Your task to perform on an android device: turn off picture-in-picture Image 0: 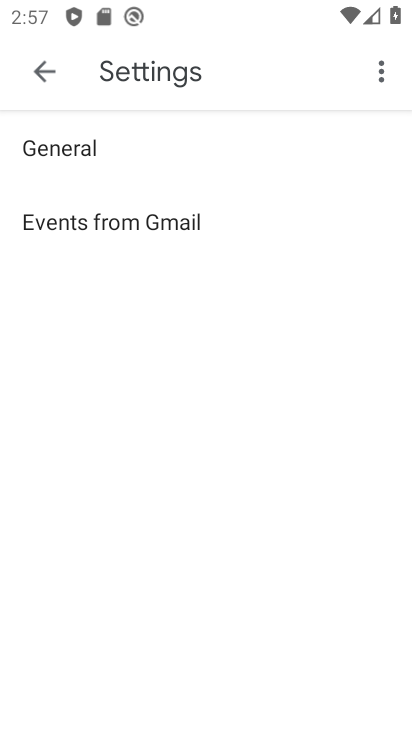
Step 0: press home button
Your task to perform on an android device: turn off picture-in-picture Image 1: 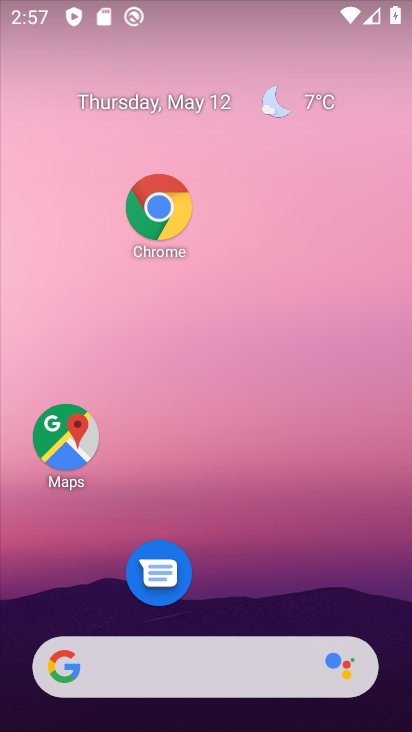
Step 1: drag from (252, 611) to (243, 567)
Your task to perform on an android device: turn off picture-in-picture Image 2: 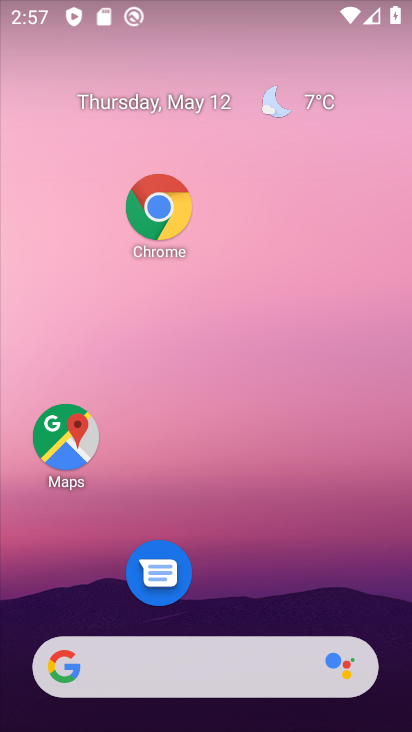
Step 2: click (169, 225)
Your task to perform on an android device: turn off picture-in-picture Image 3: 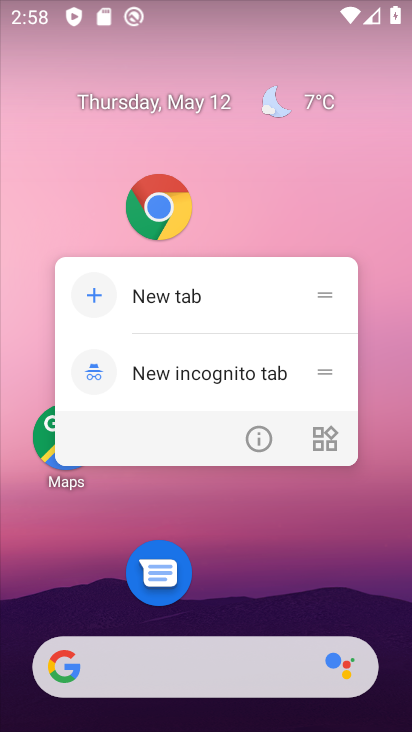
Step 3: click (254, 445)
Your task to perform on an android device: turn off picture-in-picture Image 4: 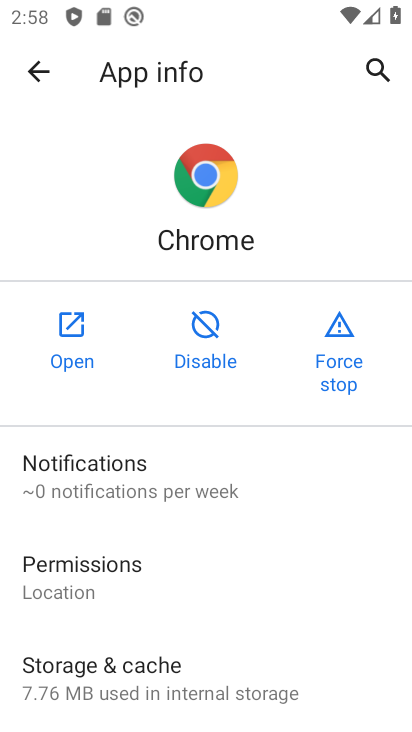
Step 4: drag from (219, 518) to (265, 282)
Your task to perform on an android device: turn off picture-in-picture Image 5: 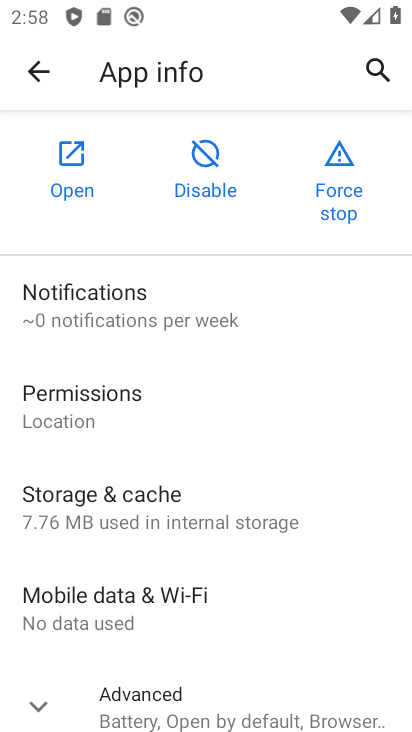
Step 5: drag from (225, 547) to (255, 309)
Your task to perform on an android device: turn off picture-in-picture Image 6: 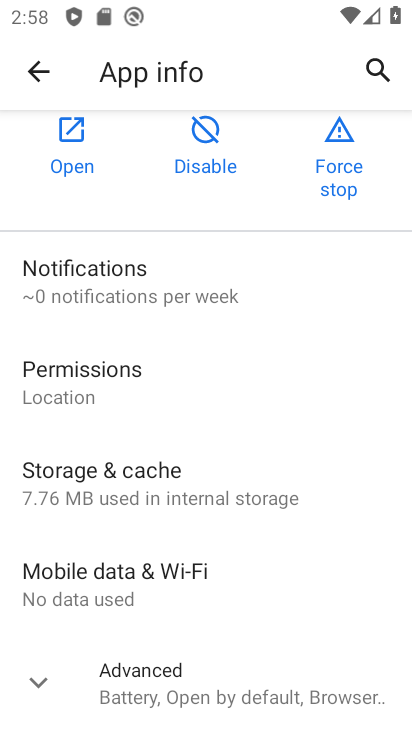
Step 6: click (140, 691)
Your task to perform on an android device: turn off picture-in-picture Image 7: 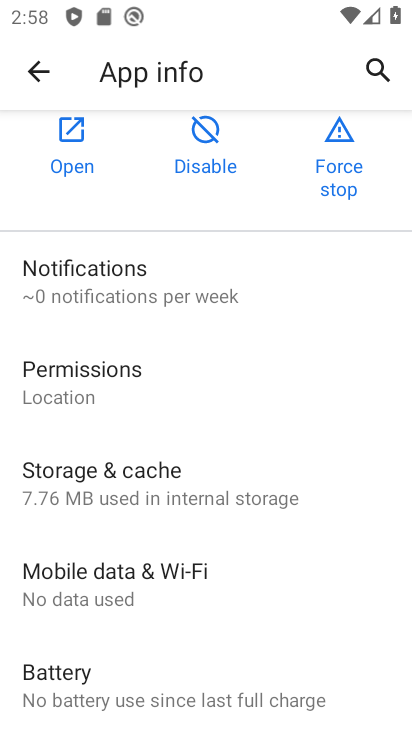
Step 7: drag from (93, 566) to (225, 296)
Your task to perform on an android device: turn off picture-in-picture Image 8: 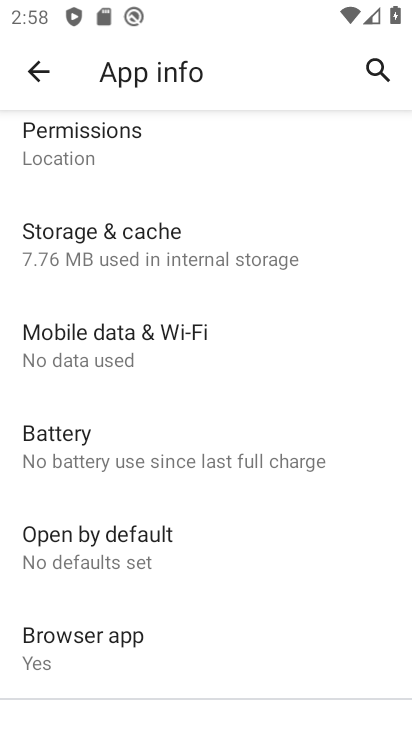
Step 8: drag from (192, 334) to (175, 679)
Your task to perform on an android device: turn off picture-in-picture Image 9: 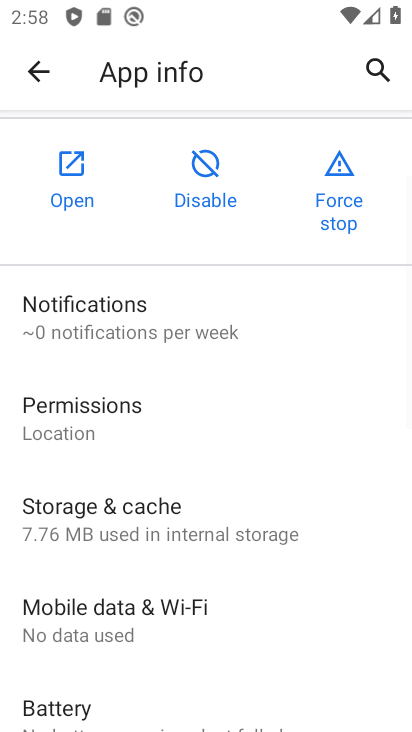
Step 9: drag from (160, 639) to (184, 286)
Your task to perform on an android device: turn off picture-in-picture Image 10: 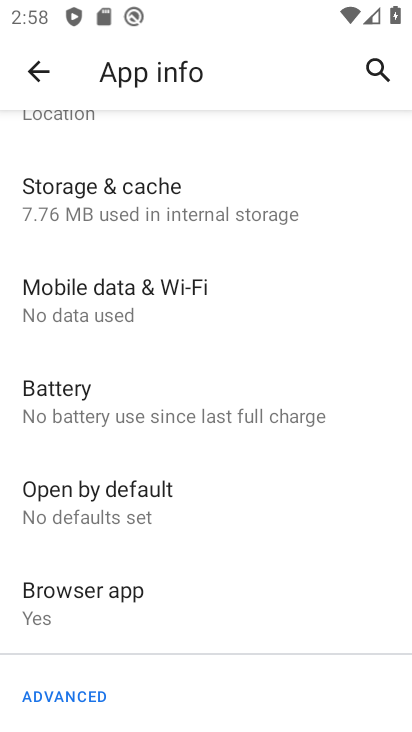
Step 10: drag from (130, 563) to (203, 203)
Your task to perform on an android device: turn off picture-in-picture Image 11: 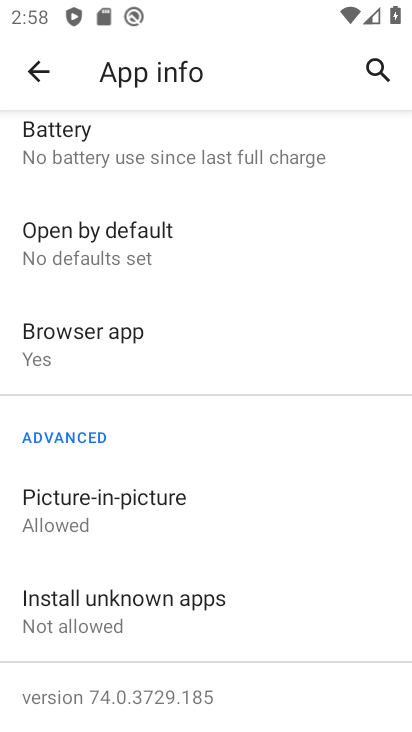
Step 11: click (126, 508)
Your task to perform on an android device: turn off picture-in-picture Image 12: 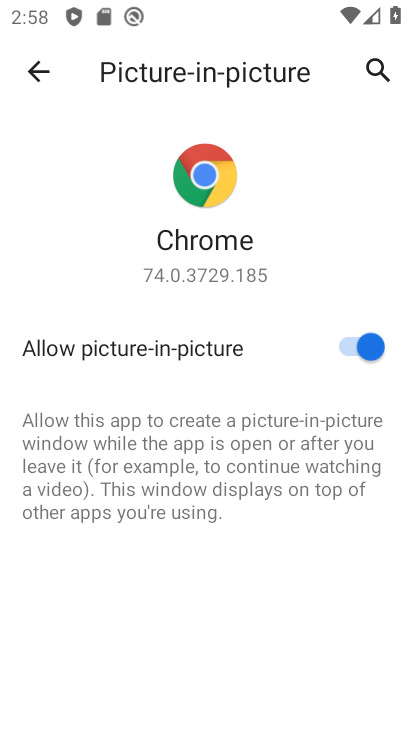
Step 12: click (320, 341)
Your task to perform on an android device: turn off picture-in-picture Image 13: 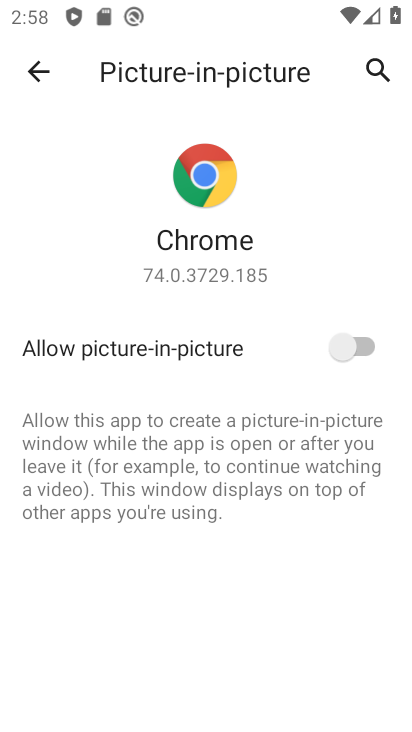
Step 13: press home button
Your task to perform on an android device: turn off picture-in-picture Image 14: 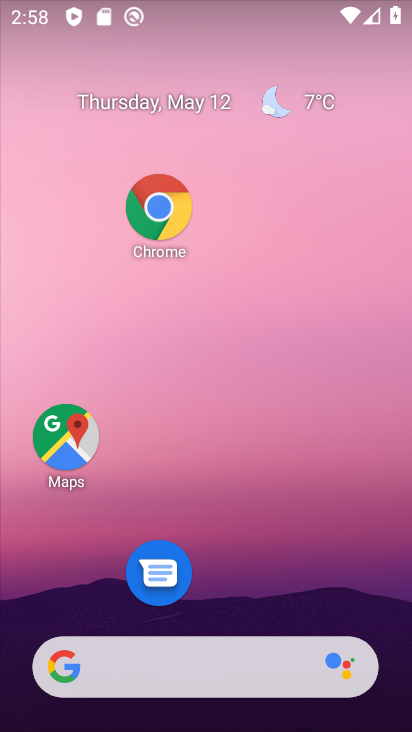
Step 14: click (185, 216)
Your task to perform on an android device: turn off picture-in-picture Image 15: 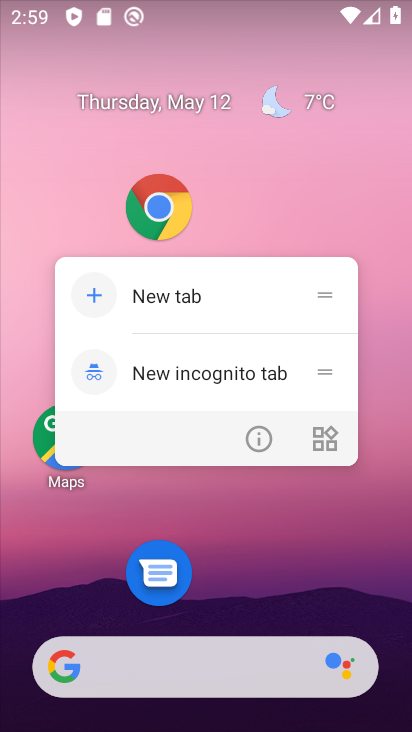
Step 15: click (254, 439)
Your task to perform on an android device: turn off picture-in-picture Image 16: 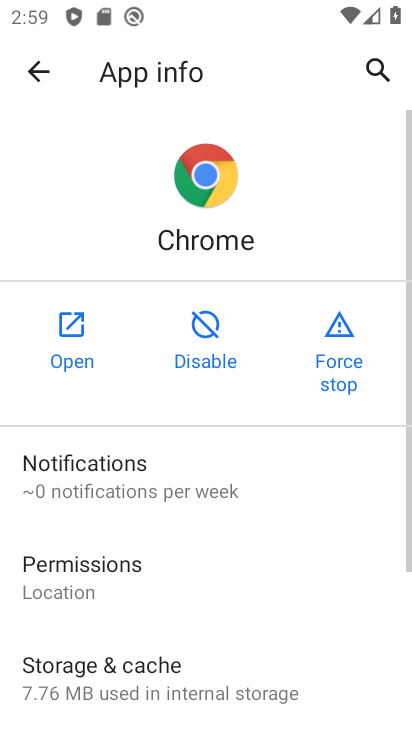
Step 16: drag from (143, 626) to (196, 328)
Your task to perform on an android device: turn off picture-in-picture Image 17: 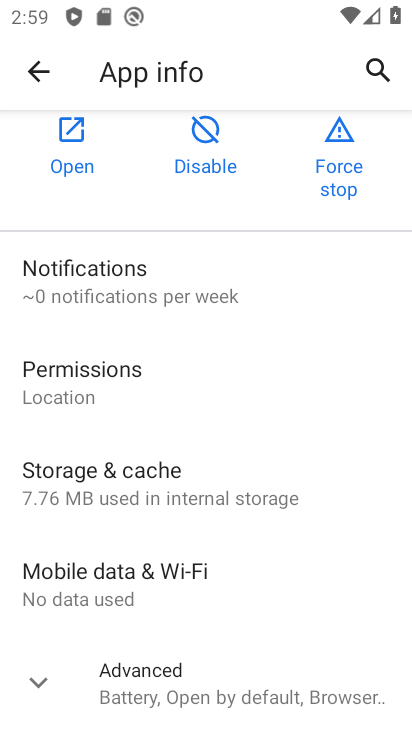
Step 17: click (149, 683)
Your task to perform on an android device: turn off picture-in-picture Image 18: 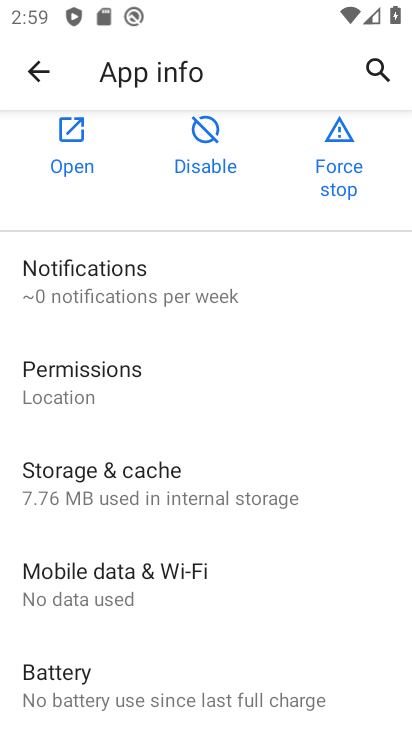
Step 18: drag from (128, 675) to (211, 284)
Your task to perform on an android device: turn off picture-in-picture Image 19: 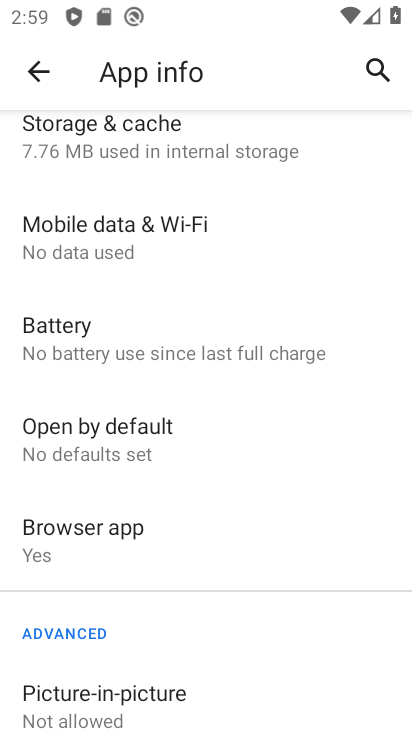
Step 19: drag from (97, 604) to (186, 283)
Your task to perform on an android device: turn off picture-in-picture Image 20: 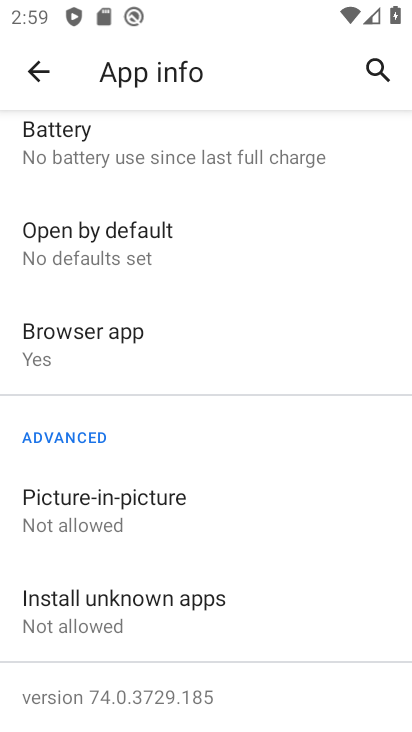
Step 20: click (146, 507)
Your task to perform on an android device: turn off picture-in-picture Image 21: 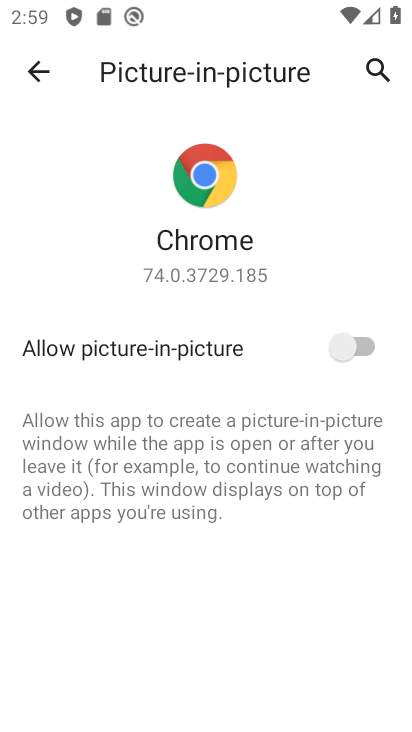
Step 21: task complete